Your task to perform on an android device: turn on priority inbox in the gmail app Image 0: 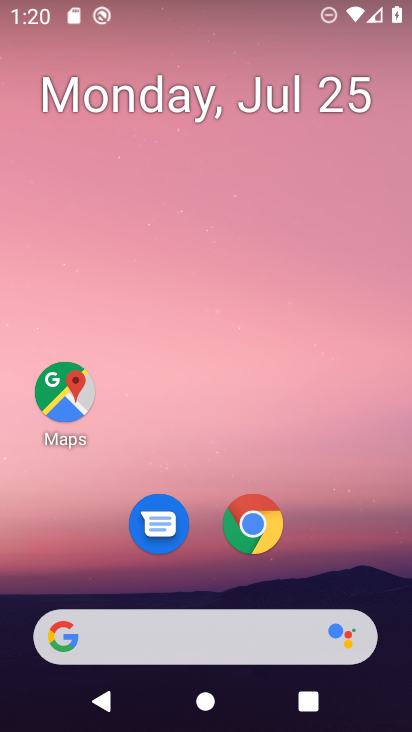
Step 0: press home button
Your task to perform on an android device: turn on priority inbox in the gmail app Image 1: 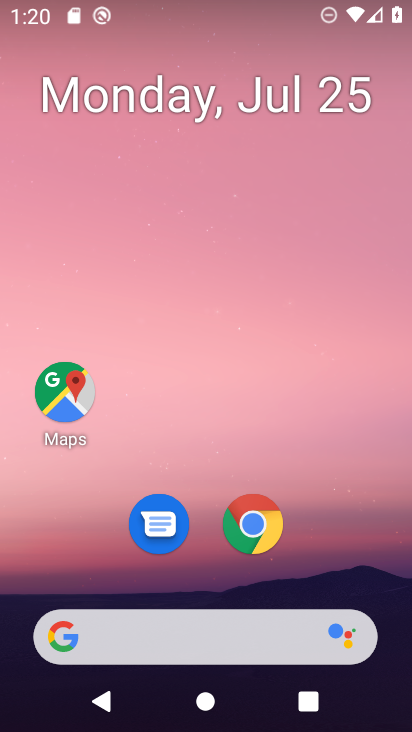
Step 1: drag from (183, 659) to (357, 104)
Your task to perform on an android device: turn on priority inbox in the gmail app Image 2: 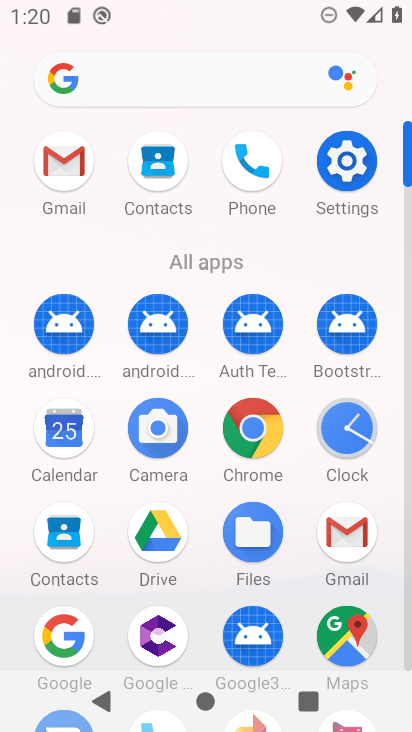
Step 2: click (59, 177)
Your task to perform on an android device: turn on priority inbox in the gmail app Image 3: 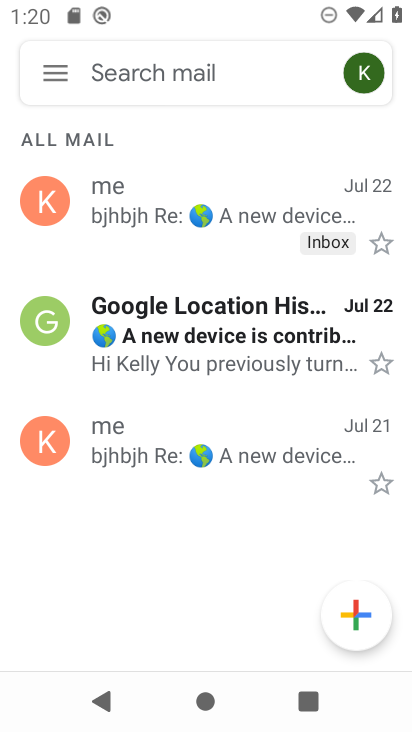
Step 3: click (44, 72)
Your task to perform on an android device: turn on priority inbox in the gmail app Image 4: 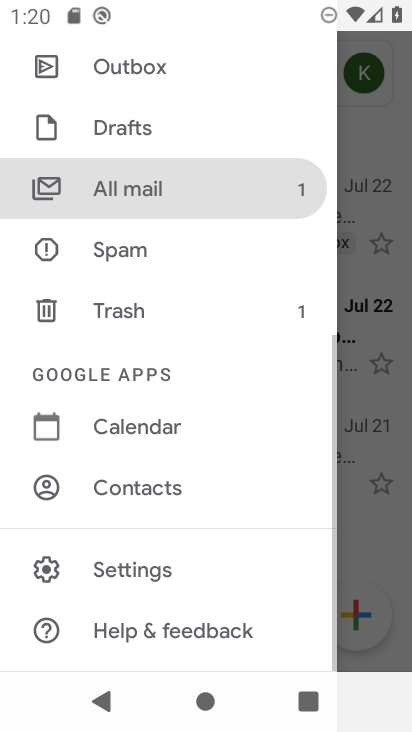
Step 4: click (138, 566)
Your task to perform on an android device: turn on priority inbox in the gmail app Image 5: 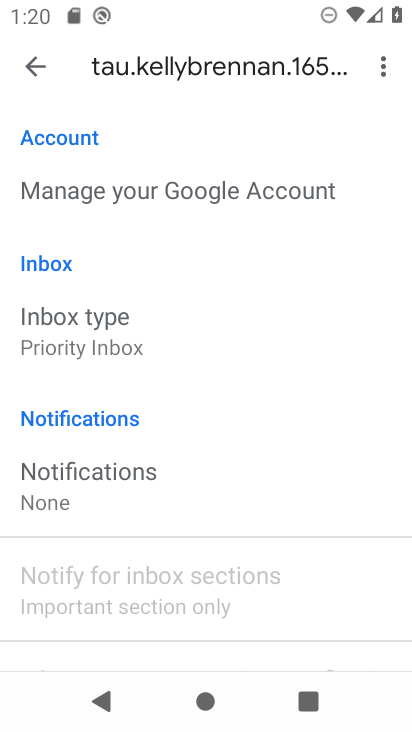
Step 5: click (123, 326)
Your task to perform on an android device: turn on priority inbox in the gmail app Image 6: 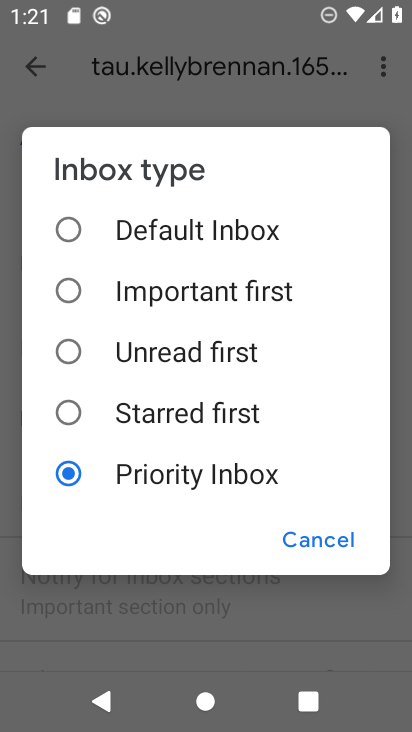
Step 6: task complete